Your task to perform on an android device: turn on bluetooth scan Image 0: 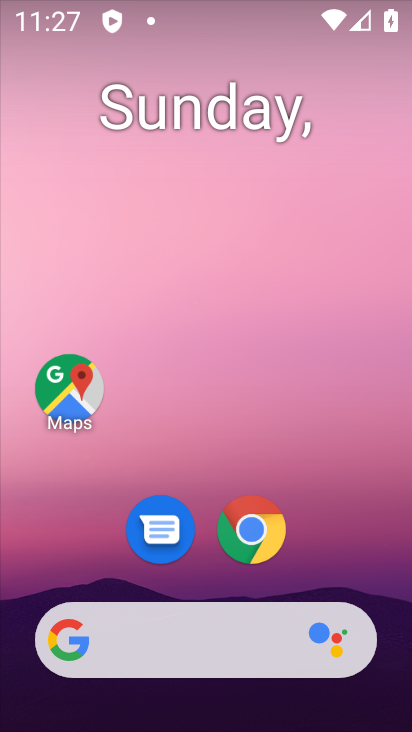
Step 0: drag from (391, 570) to (373, 168)
Your task to perform on an android device: turn on bluetooth scan Image 1: 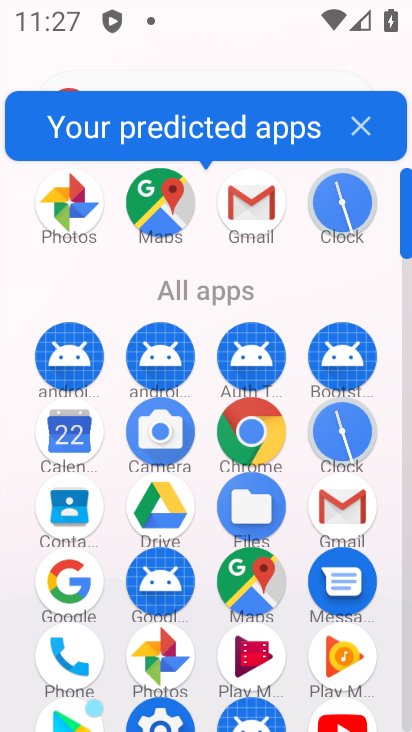
Step 1: drag from (389, 555) to (375, 354)
Your task to perform on an android device: turn on bluetooth scan Image 2: 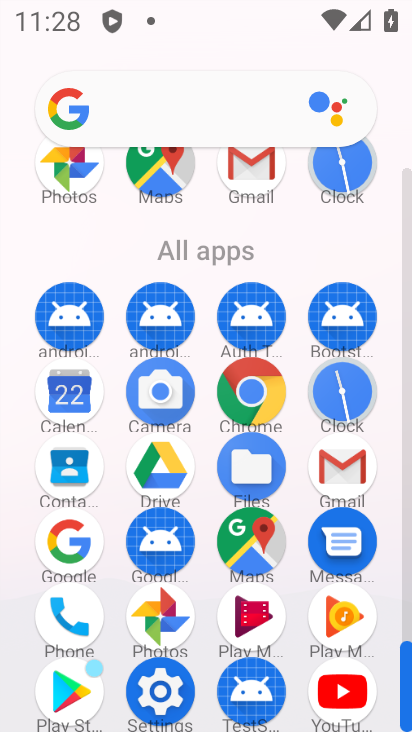
Step 2: click (171, 701)
Your task to perform on an android device: turn on bluetooth scan Image 3: 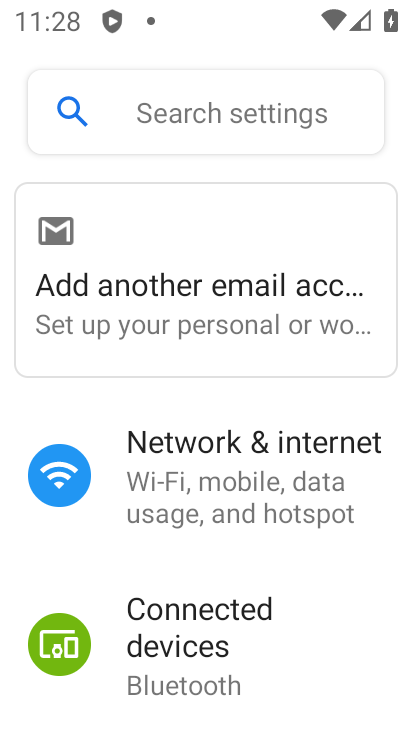
Step 3: drag from (334, 605) to (348, 474)
Your task to perform on an android device: turn on bluetooth scan Image 4: 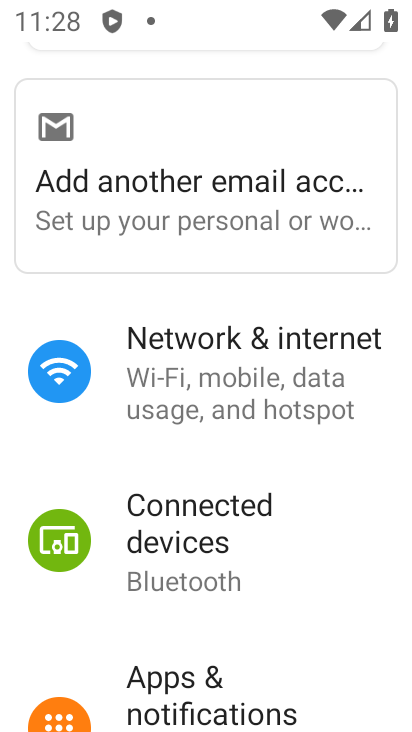
Step 4: drag from (335, 597) to (329, 485)
Your task to perform on an android device: turn on bluetooth scan Image 5: 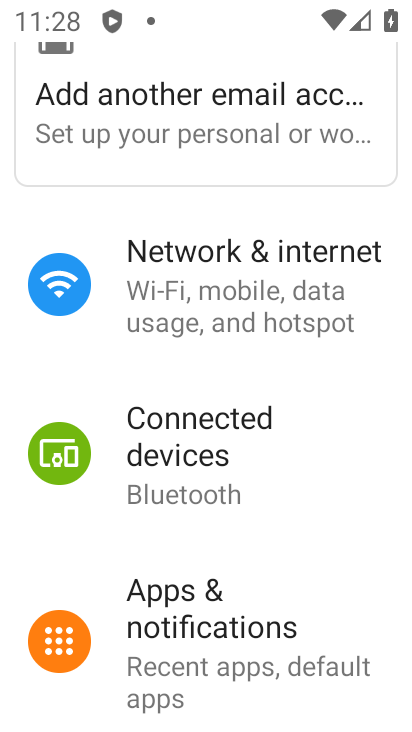
Step 5: drag from (330, 607) to (341, 508)
Your task to perform on an android device: turn on bluetooth scan Image 6: 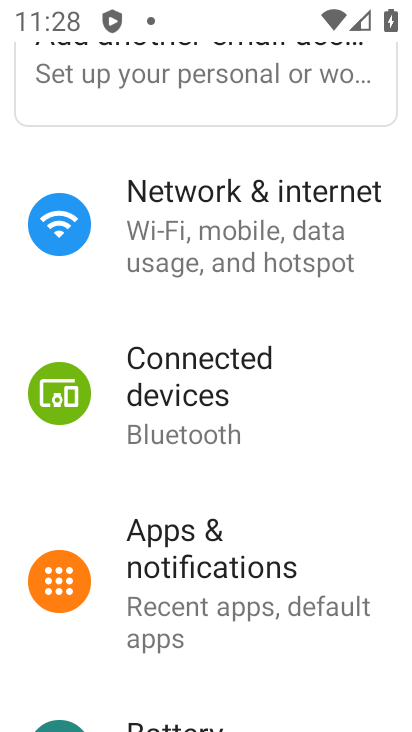
Step 6: drag from (328, 663) to (329, 532)
Your task to perform on an android device: turn on bluetooth scan Image 7: 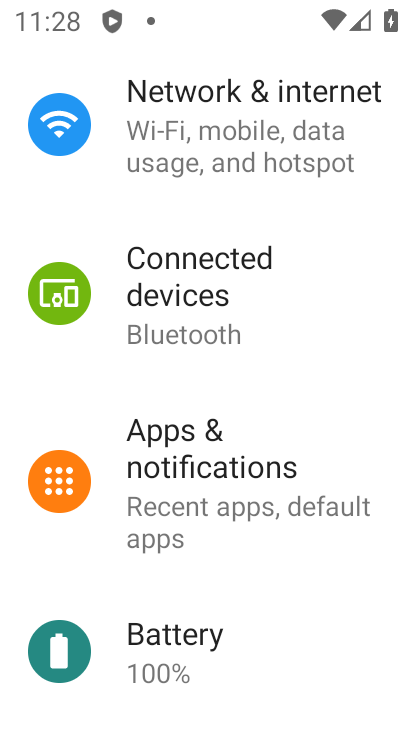
Step 7: drag from (341, 659) to (335, 517)
Your task to perform on an android device: turn on bluetooth scan Image 8: 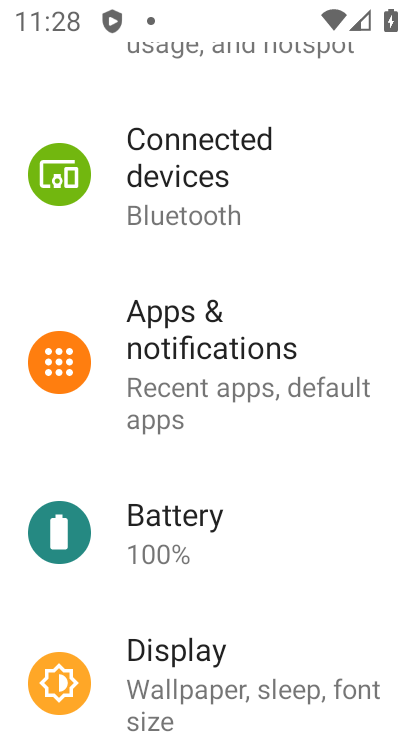
Step 8: drag from (338, 627) to (343, 522)
Your task to perform on an android device: turn on bluetooth scan Image 9: 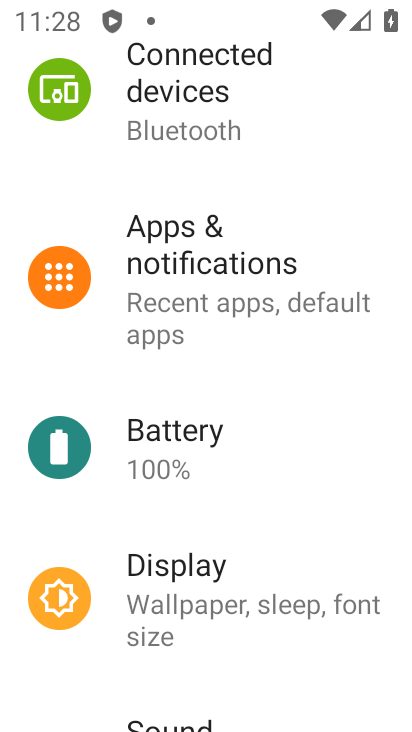
Step 9: drag from (331, 655) to (332, 573)
Your task to perform on an android device: turn on bluetooth scan Image 10: 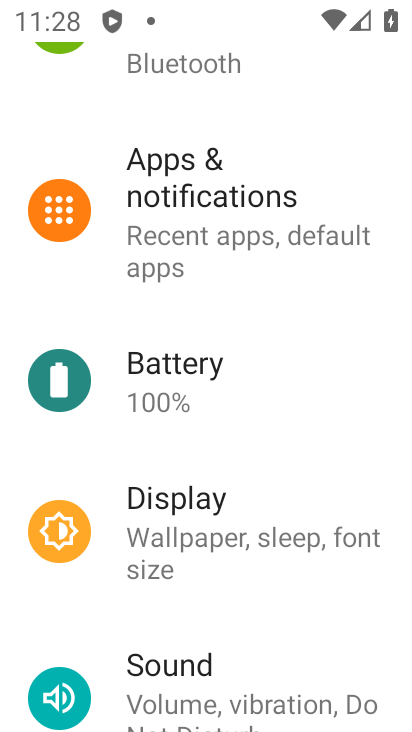
Step 10: drag from (332, 633) to (332, 560)
Your task to perform on an android device: turn on bluetooth scan Image 11: 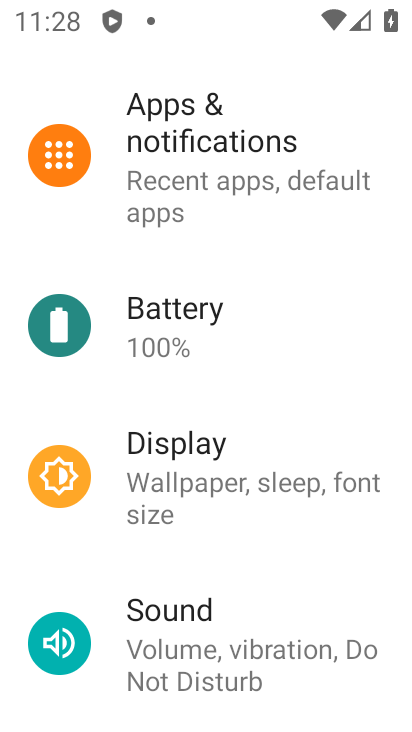
Step 11: drag from (329, 671) to (330, 563)
Your task to perform on an android device: turn on bluetooth scan Image 12: 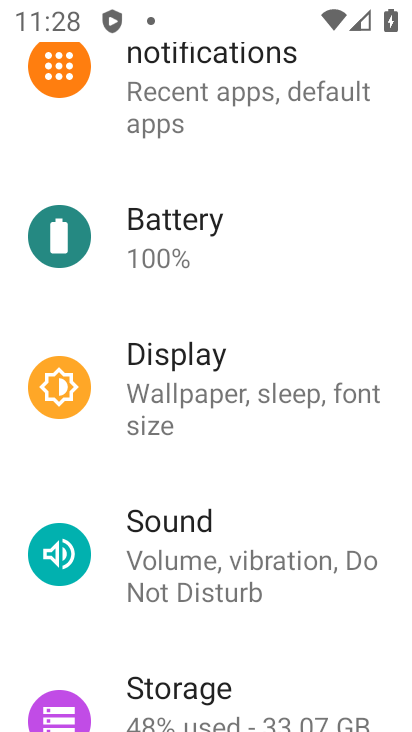
Step 12: drag from (335, 675) to (343, 535)
Your task to perform on an android device: turn on bluetooth scan Image 13: 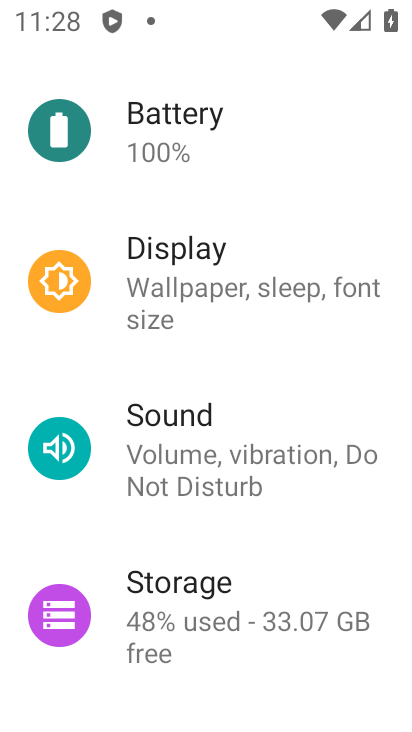
Step 13: drag from (352, 674) to (357, 528)
Your task to perform on an android device: turn on bluetooth scan Image 14: 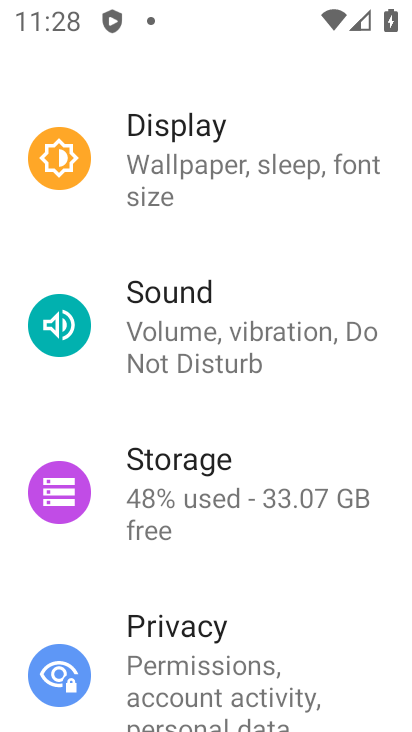
Step 14: drag from (360, 628) to (363, 533)
Your task to perform on an android device: turn on bluetooth scan Image 15: 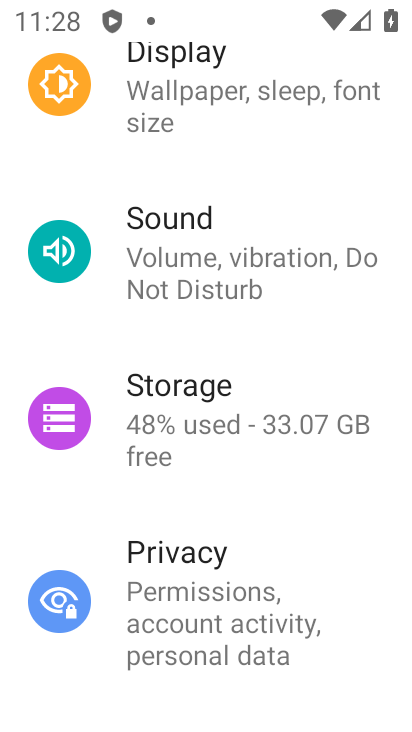
Step 15: drag from (355, 653) to (364, 516)
Your task to perform on an android device: turn on bluetooth scan Image 16: 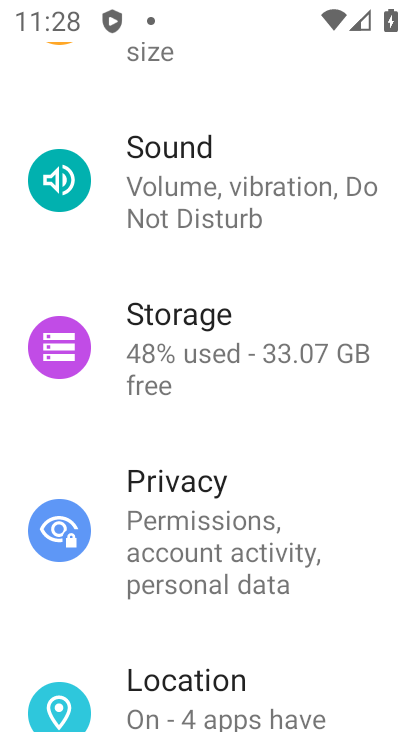
Step 16: drag from (359, 628) to (363, 503)
Your task to perform on an android device: turn on bluetooth scan Image 17: 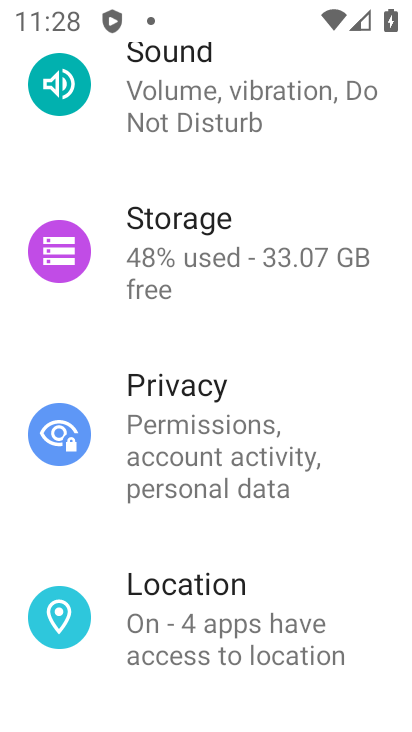
Step 17: click (289, 641)
Your task to perform on an android device: turn on bluetooth scan Image 18: 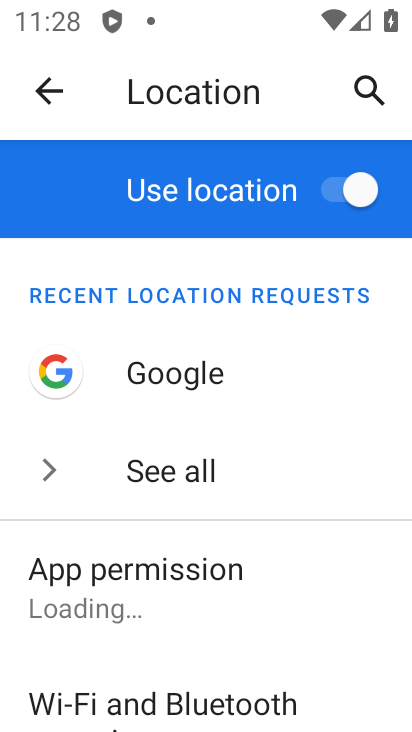
Step 18: drag from (340, 613) to (342, 381)
Your task to perform on an android device: turn on bluetooth scan Image 19: 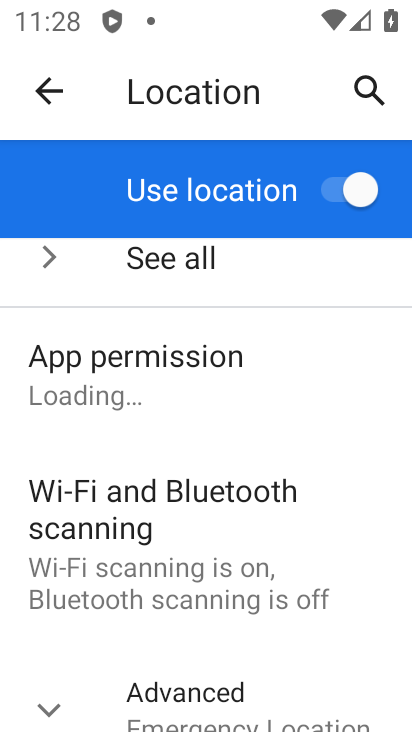
Step 19: click (275, 553)
Your task to perform on an android device: turn on bluetooth scan Image 20: 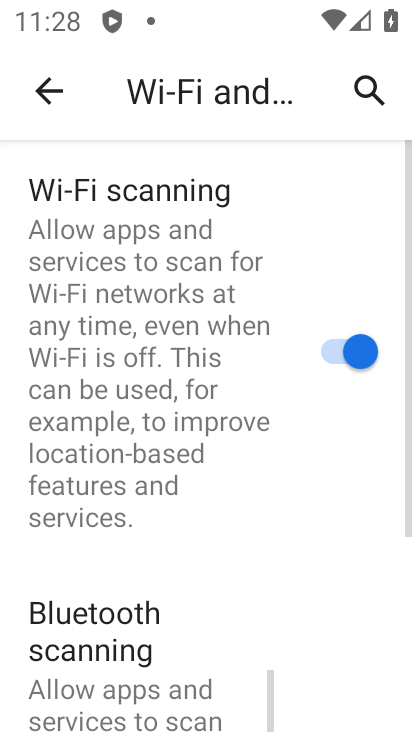
Step 20: drag from (297, 613) to (311, 398)
Your task to perform on an android device: turn on bluetooth scan Image 21: 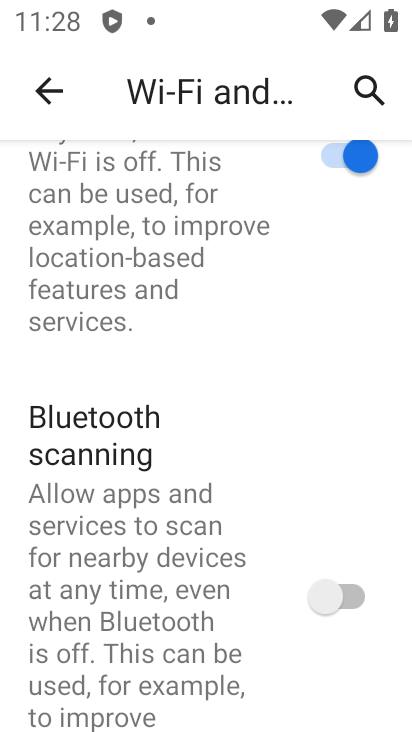
Step 21: click (344, 611)
Your task to perform on an android device: turn on bluetooth scan Image 22: 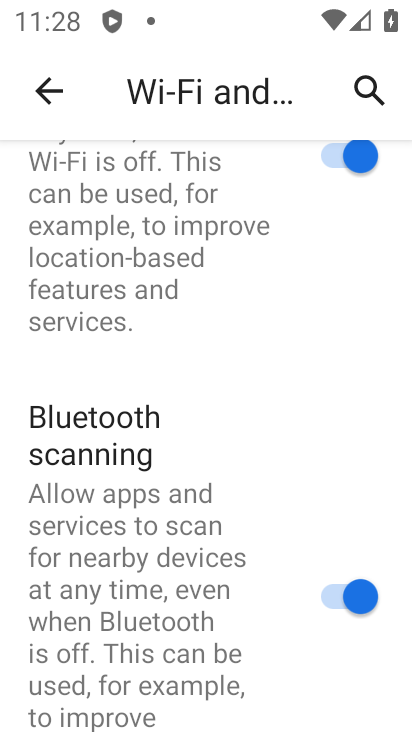
Step 22: task complete